Your task to perform on an android device: turn off translation in the chrome app Image 0: 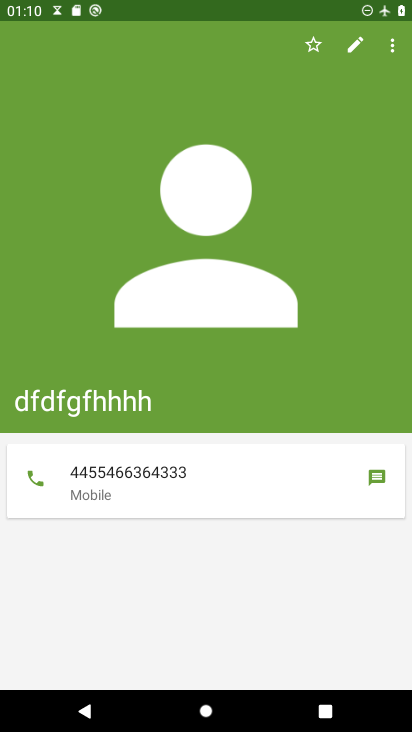
Step 0: press home button
Your task to perform on an android device: turn off translation in the chrome app Image 1: 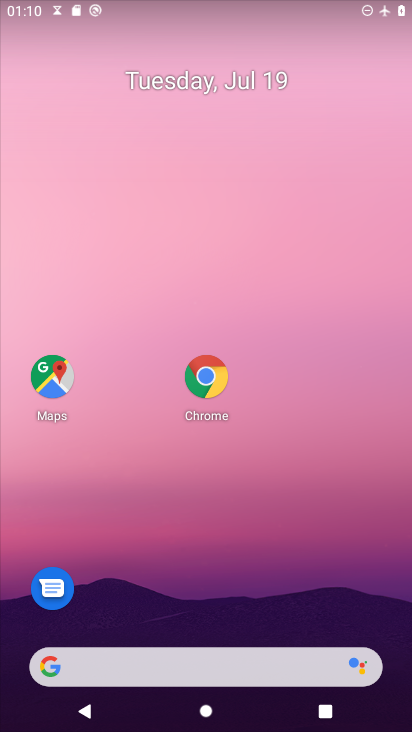
Step 1: click (203, 361)
Your task to perform on an android device: turn off translation in the chrome app Image 2: 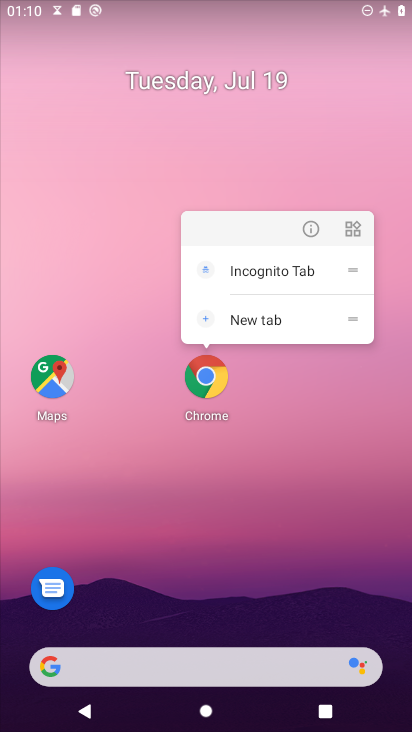
Step 2: click (214, 369)
Your task to perform on an android device: turn off translation in the chrome app Image 3: 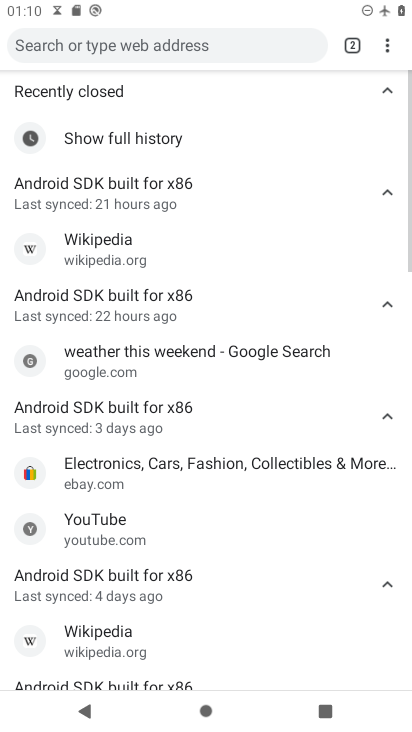
Step 3: drag from (388, 47) to (211, 372)
Your task to perform on an android device: turn off translation in the chrome app Image 4: 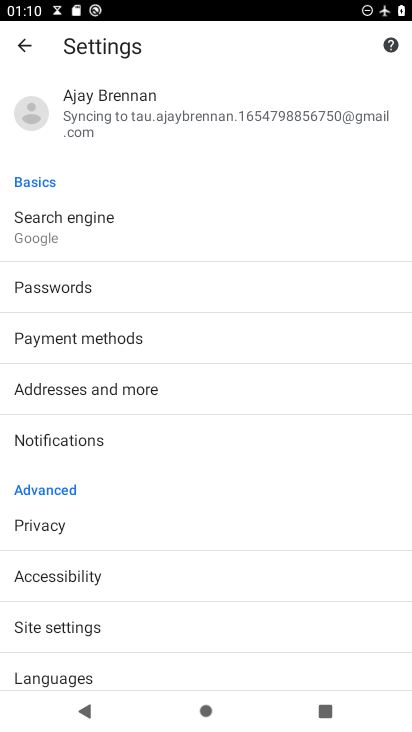
Step 4: click (72, 668)
Your task to perform on an android device: turn off translation in the chrome app Image 5: 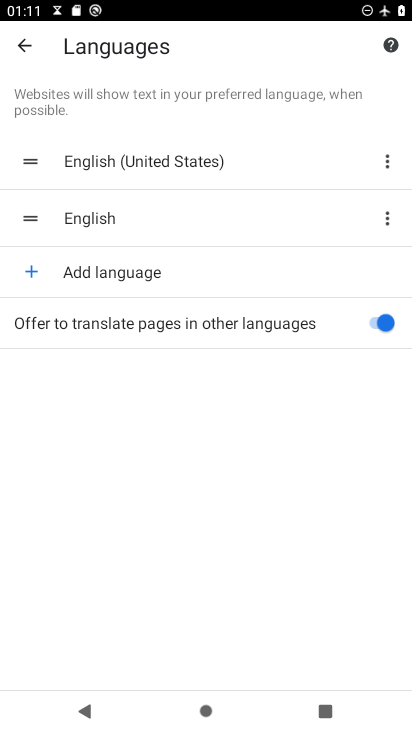
Step 5: click (387, 320)
Your task to perform on an android device: turn off translation in the chrome app Image 6: 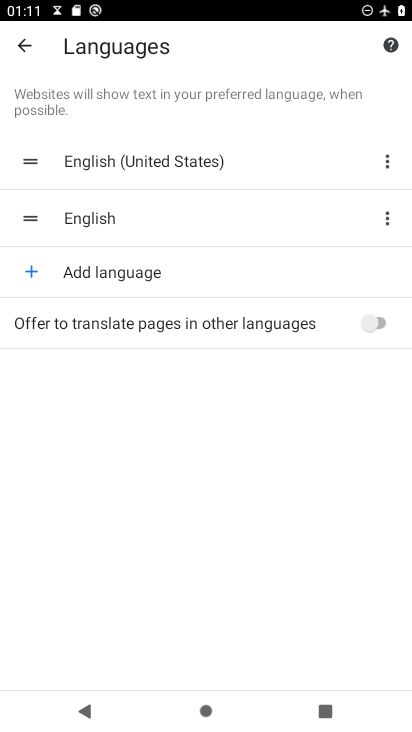
Step 6: task complete